Your task to perform on an android device: Search for "alienware area 51" on bestbuy, select the first entry, and add it to the cart. Image 0: 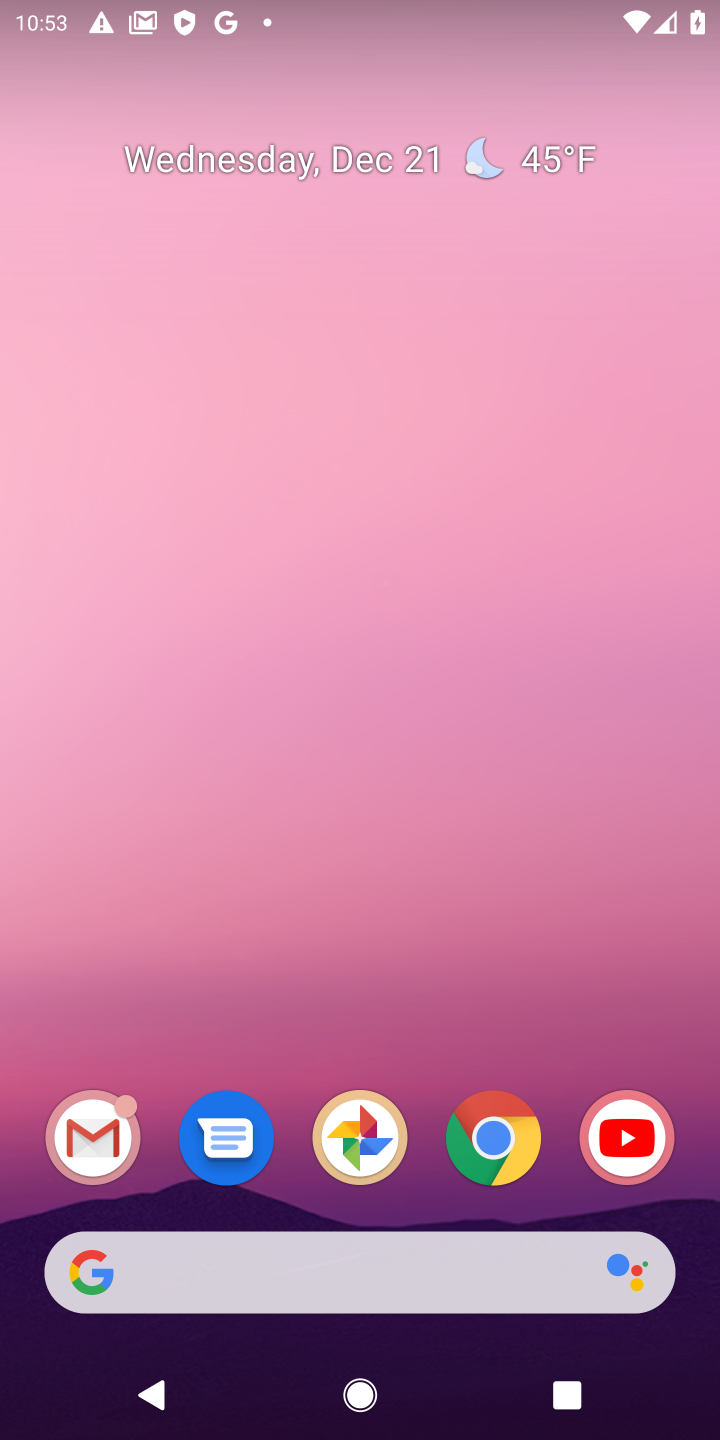
Step 0: click (495, 1145)
Your task to perform on an android device: Search for "alienware area 51" on bestbuy, select the first entry, and add it to the cart. Image 1: 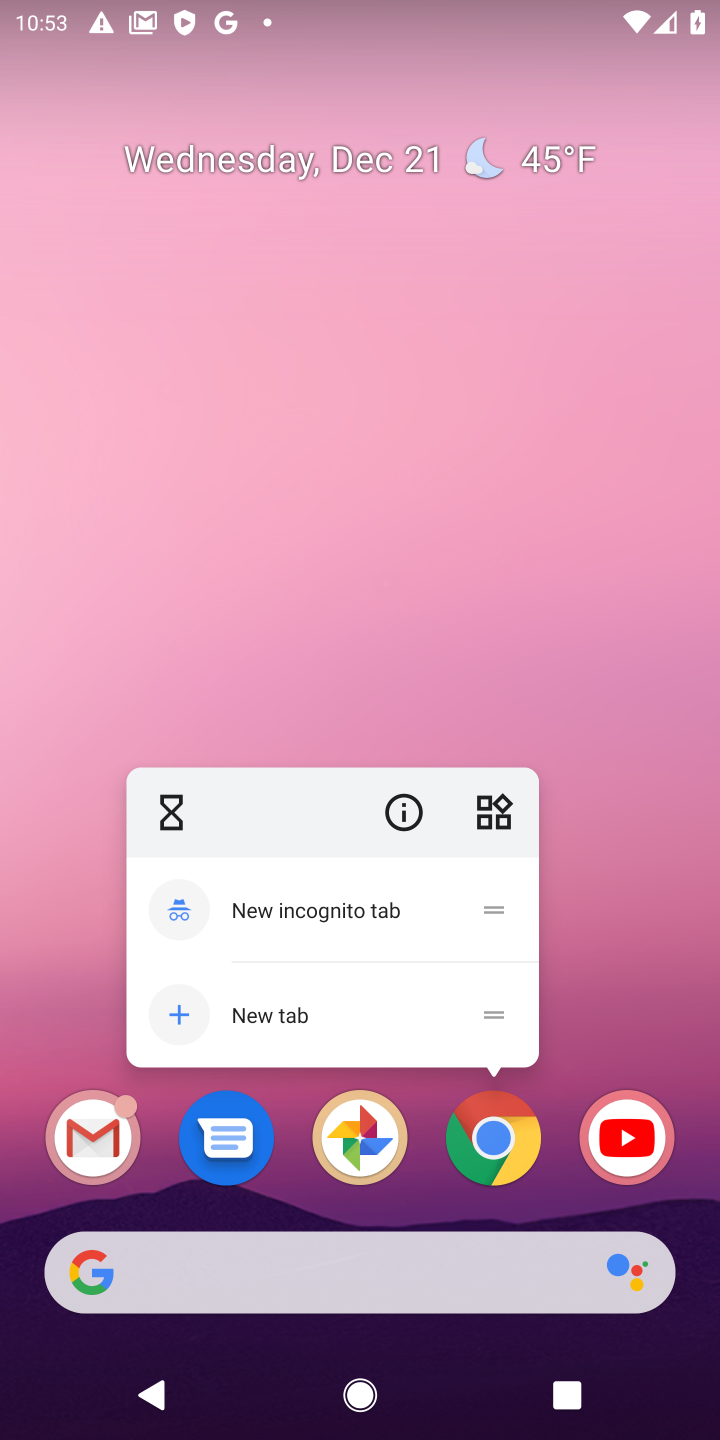
Step 1: click (495, 1145)
Your task to perform on an android device: Search for "alienware area 51" on bestbuy, select the first entry, and add it to the cart. Image 2: 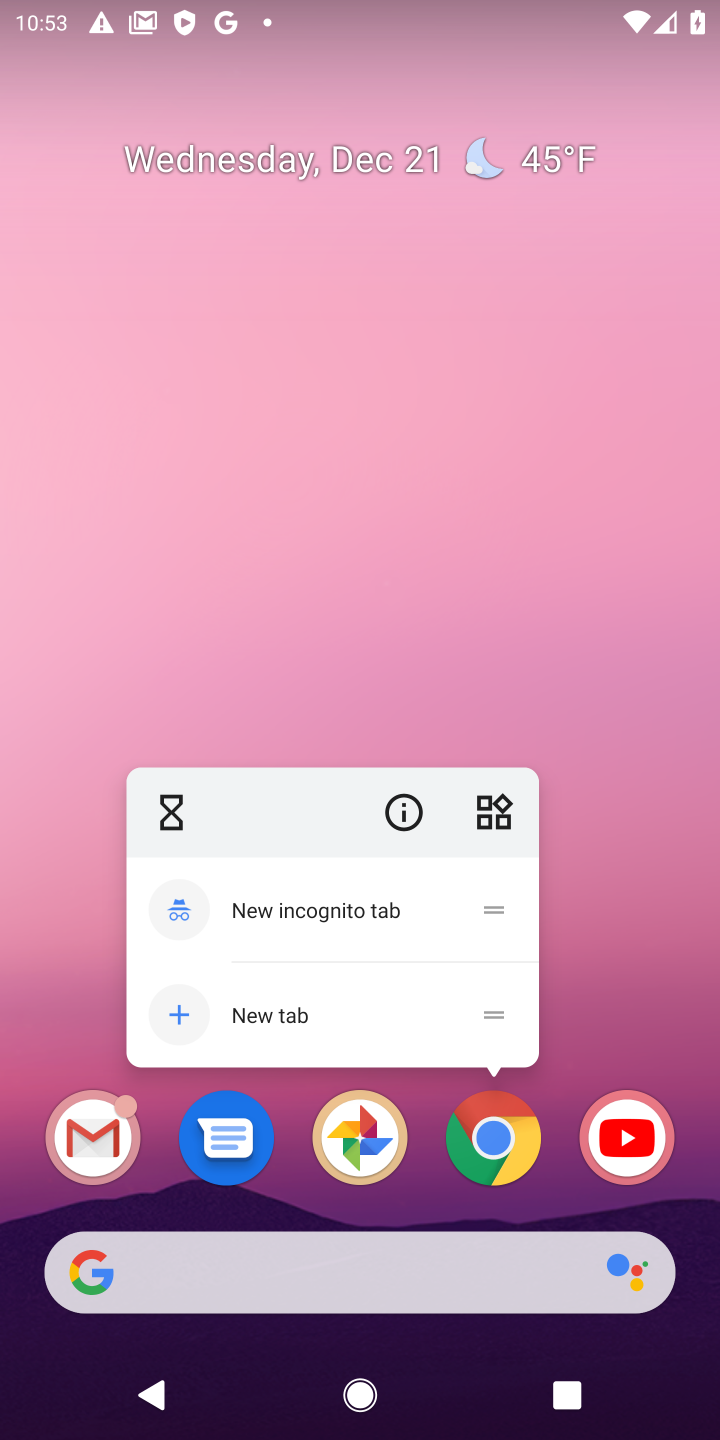
Step 2: click (495, 1145)
Your task to perform on an android device: Search for "alienware area 51" on bestbuy, select the first entry, and add it to the cart. Image 3: 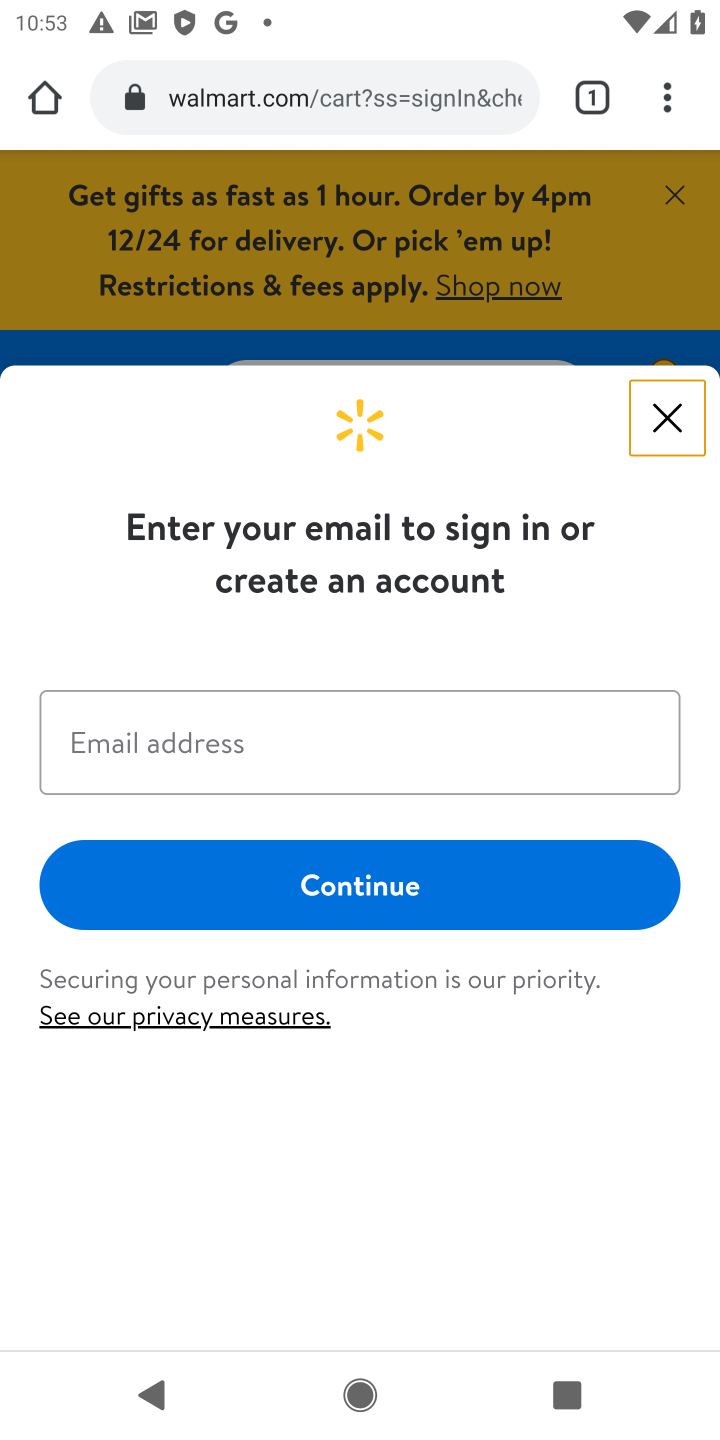
Step 3: click (271, 92)
Your task to perform on an android device: Search for "alienware area 51" on bestbuy, select the first entry, and add it to the cart. Image 4: 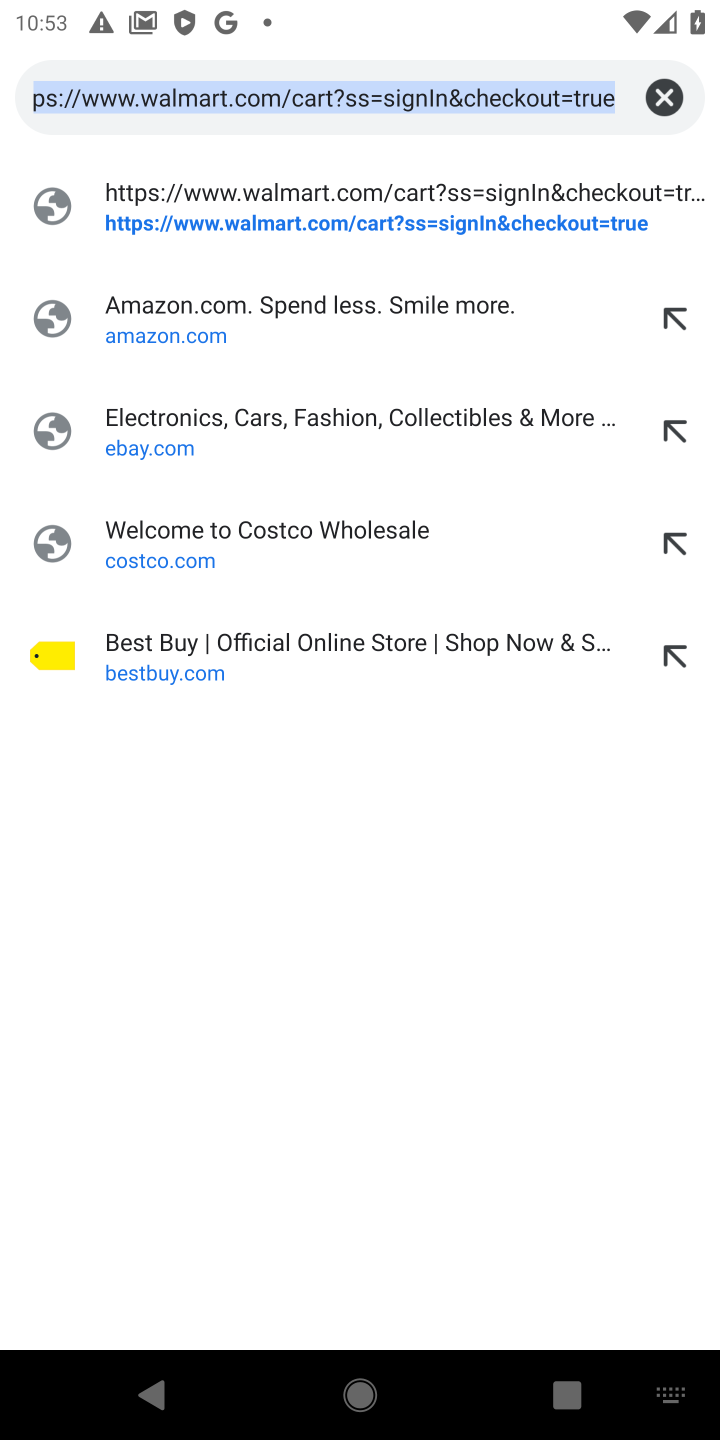
Step 4: click (160, 655)
Your task to perform on an android device: Search for "alienware area 51" on bestbuy, select the first entry, and add it to the cart. Image 5: 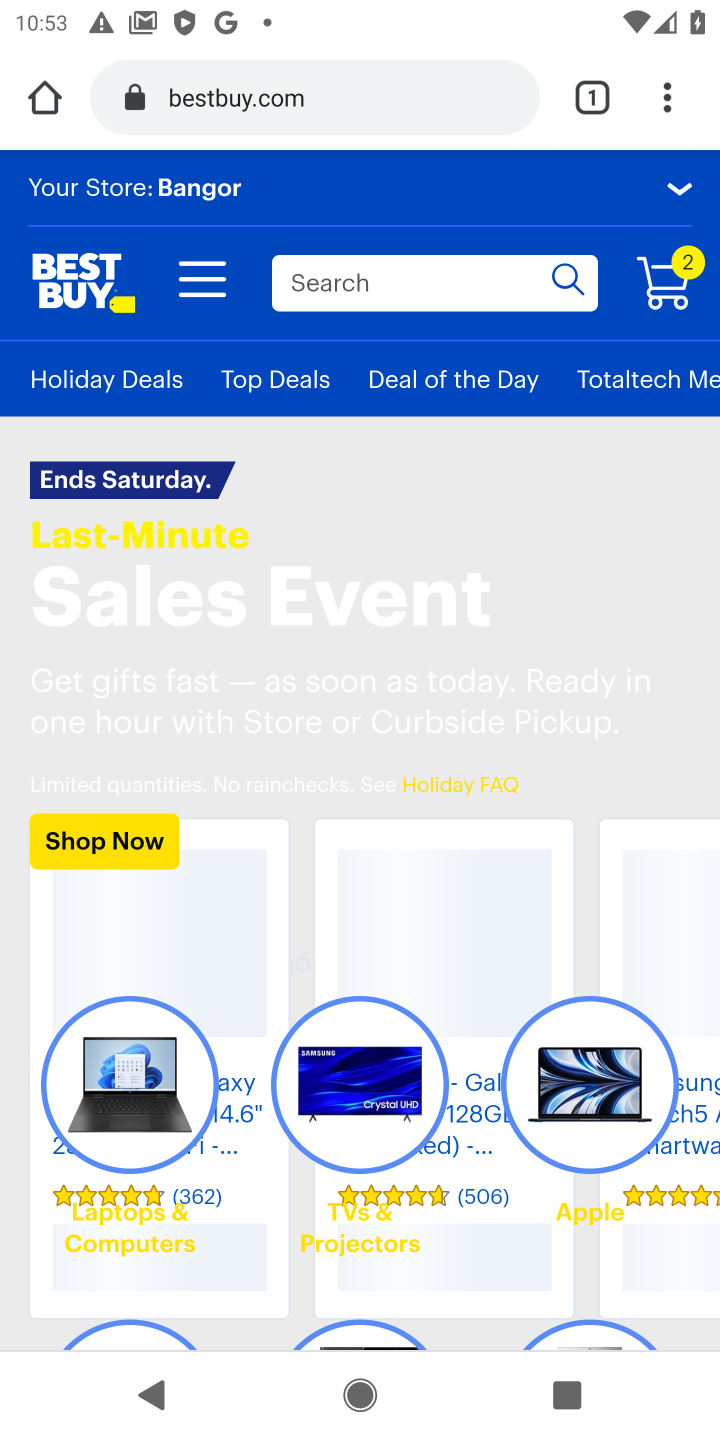
Step 5: click (347, 279)
Your task to perform on an android device: Search for "alienware area 51" on bestbuy, select the first entry, and add it to the cart. Image 6: 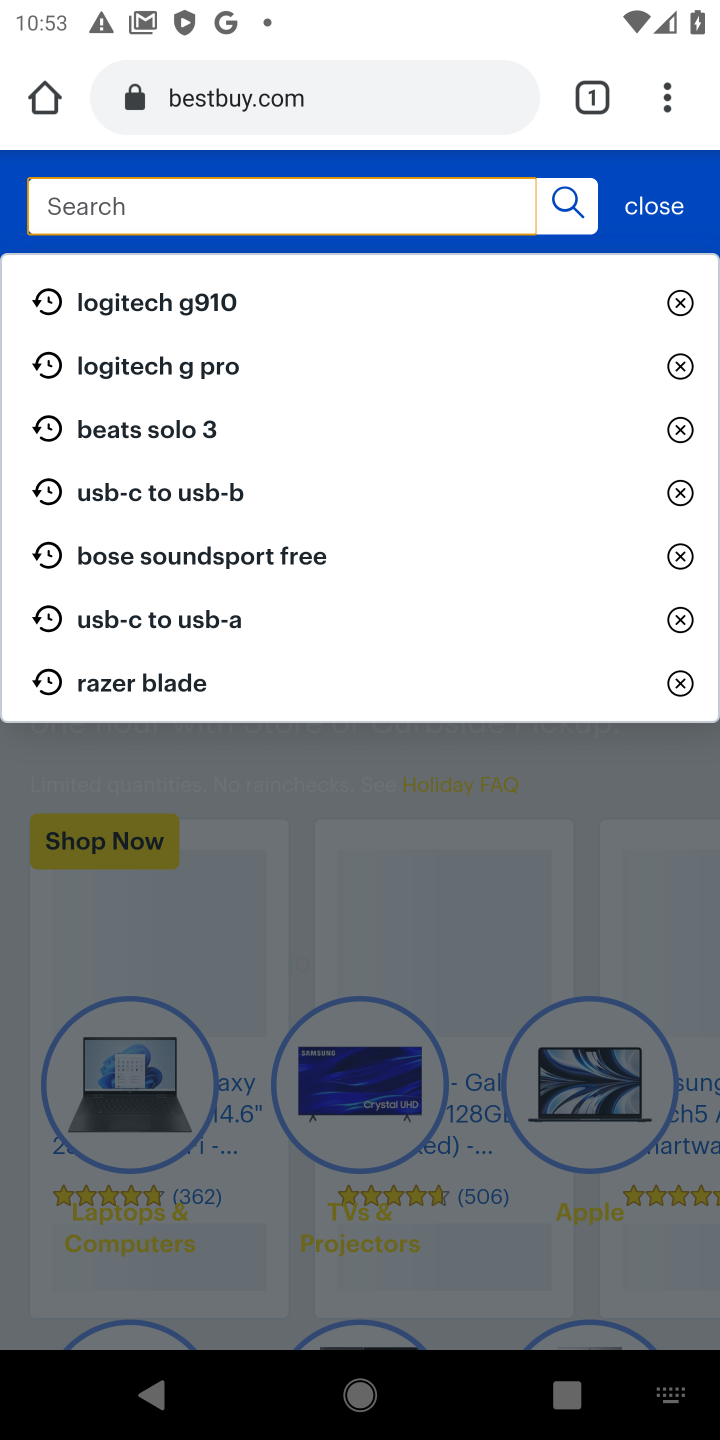
Step 6: type "alienware area 51"
Your task to perform on an android device: Search for "alienware area 51" on bestbuy, select the first entry, and add it to the cart. Image 7: 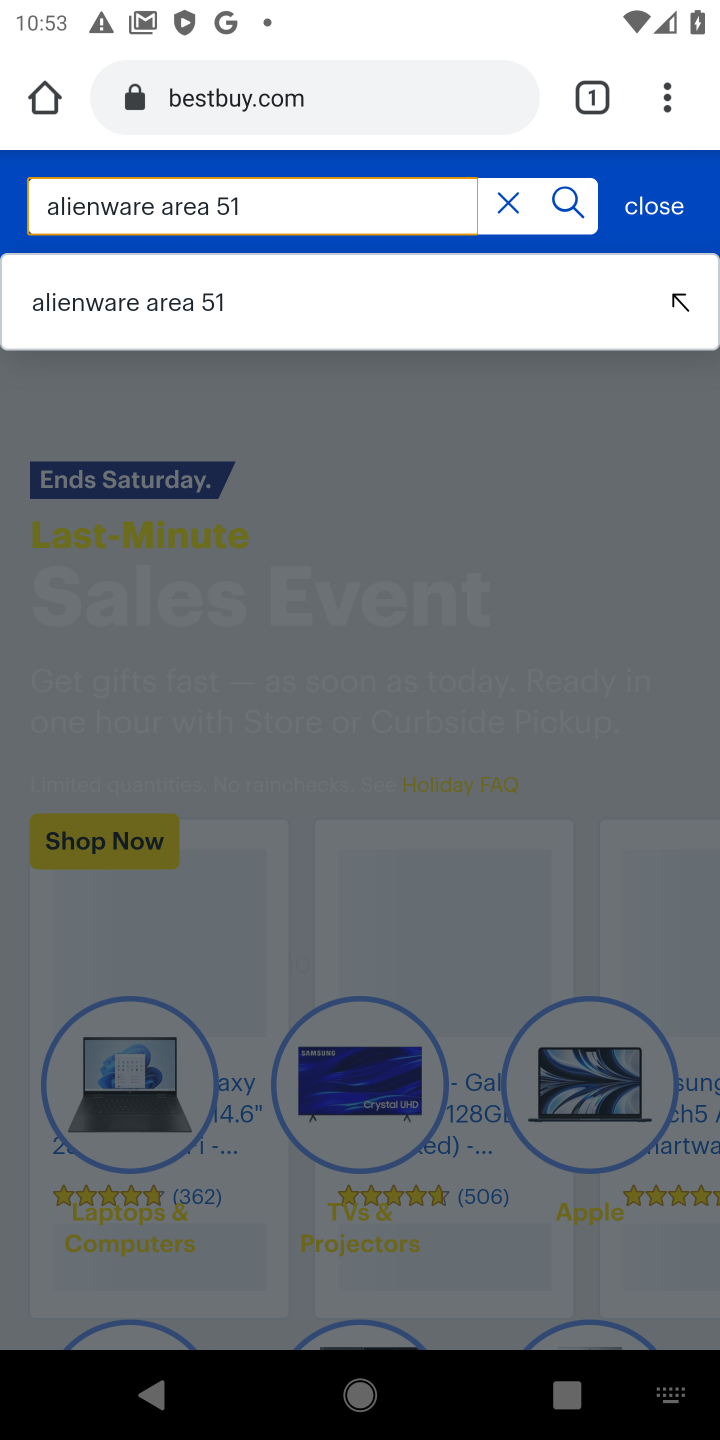
Step 7: click (74, 300)
Your task to perform on an android device: Search for "alienware area 51" on bestbuy, select the first entry, and add it to the cart. Image 8: 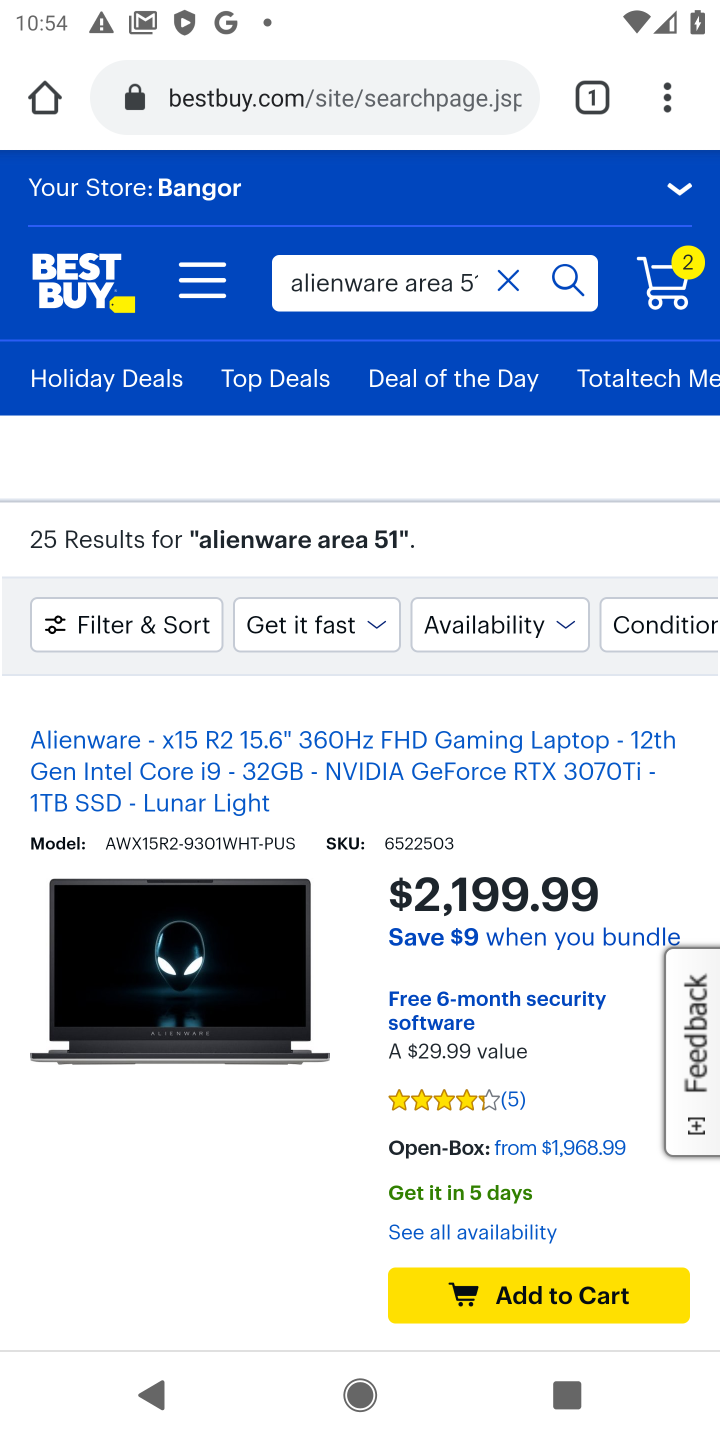
Step 8: task complete